Your task to perform on an android device: Go to Amazon Image 0: 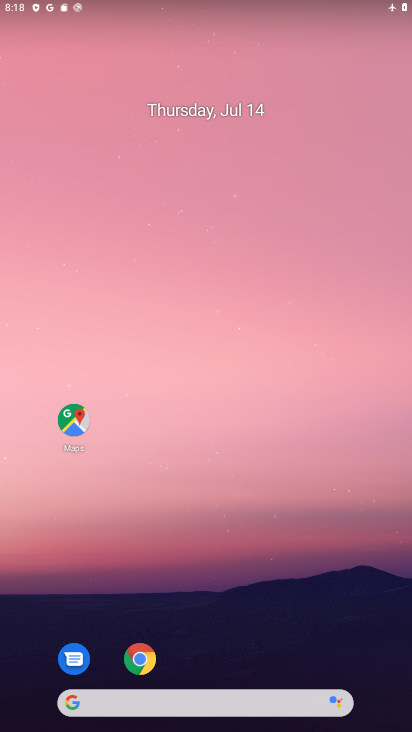
Step 0: click (142, 667)
Your task to perform on an android device: Go to Amazon Image 1: 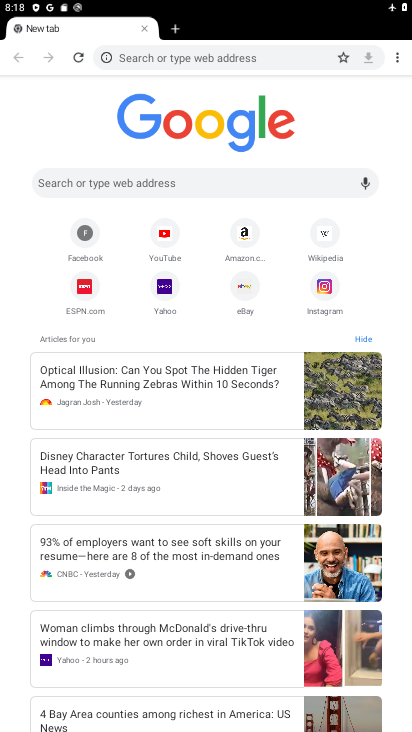
Step 1: click (247, 237)
Your task to perform on an android device: Go to Amazon Image 2: 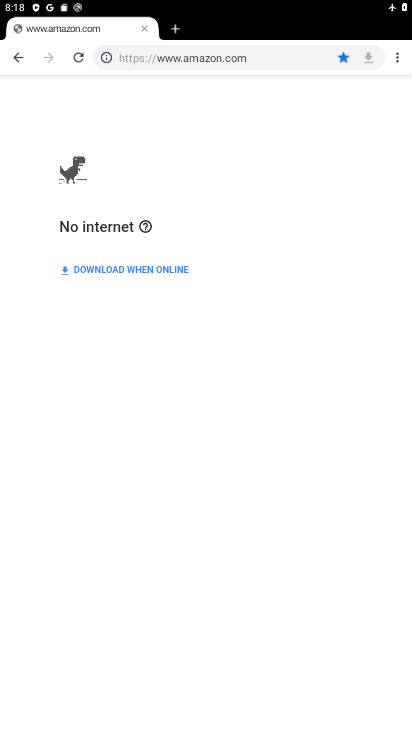
Step 2: press back button
Your task to perform on an android device: Go to Amazon Image 3: 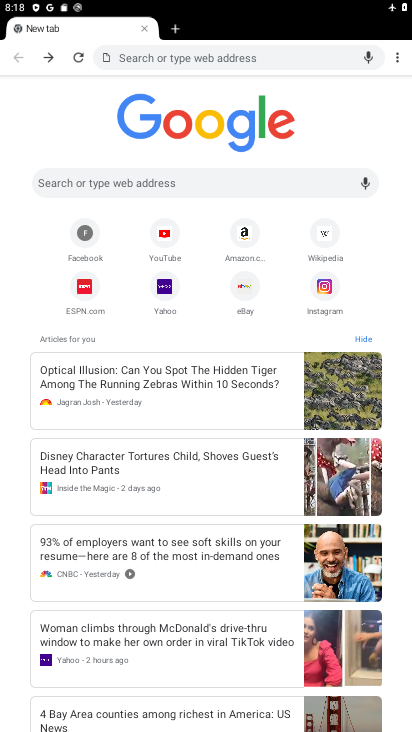
Step 3: press back button
Your task to perform on an android device: Go to Amazon Image 4: 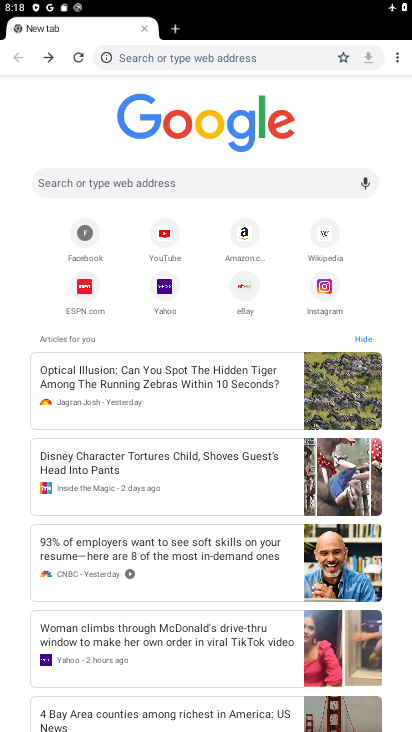
Step 4: press back button
Your task to perform on an android device: Go to Amazon Image 5: 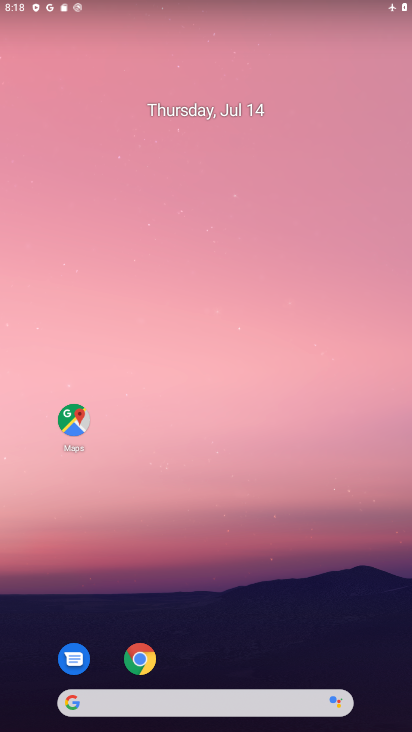
Step 5: drag from (154, 50) to (156, 5)
Your task to perform on an android device: Go to Amazon Image 6: 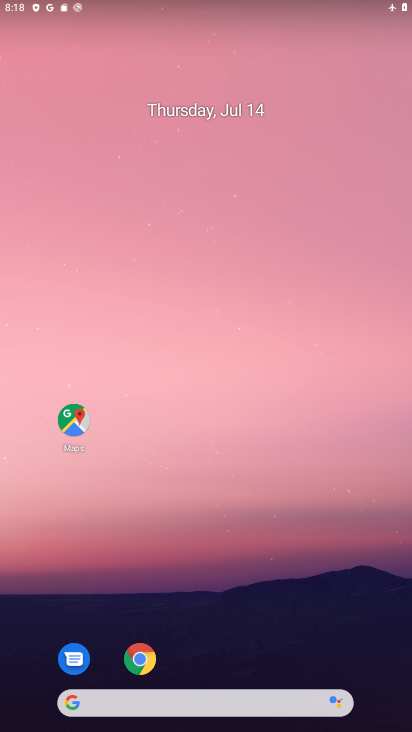
Step 6: drag from (190, 648) to (202, 147)
Your task to perform on an android device: Go to Amazon Image 7: 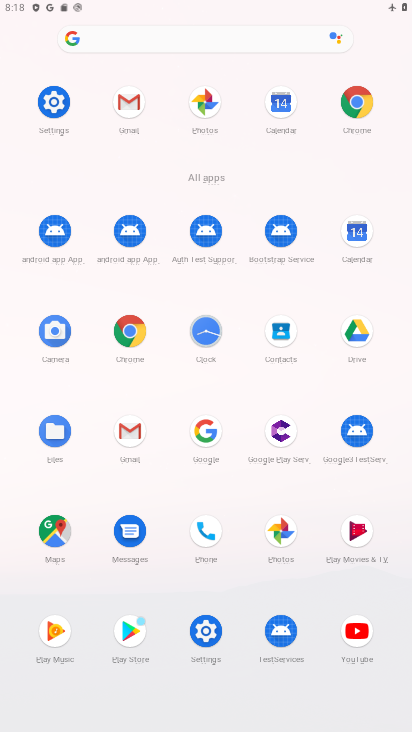
Step 7: click (51, 107)
Your task to perform on an android device: Go to Amazon Image 8: 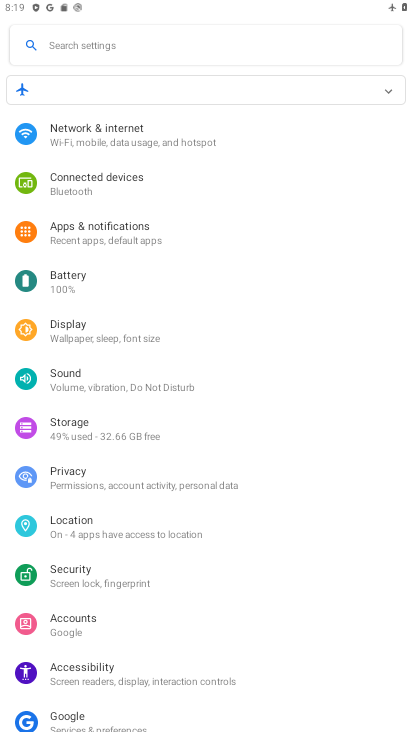
Step 8: click (388, 91)
Your task to perform on an android device: Go to Amazon Image 9: 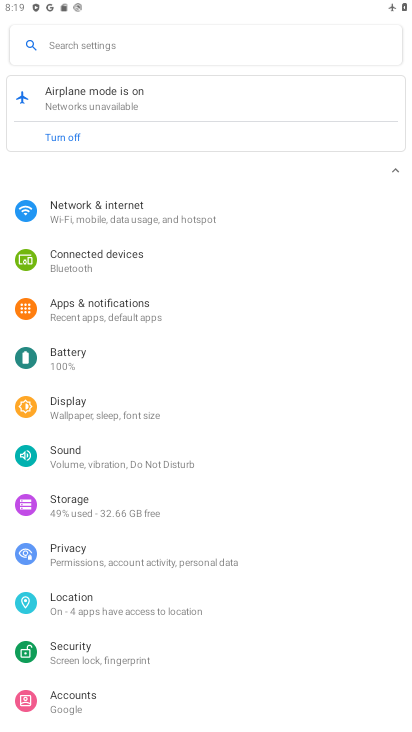
Step 9: click (72, 138)
Your task to perform on an android device: Go to Amazon Image 10: 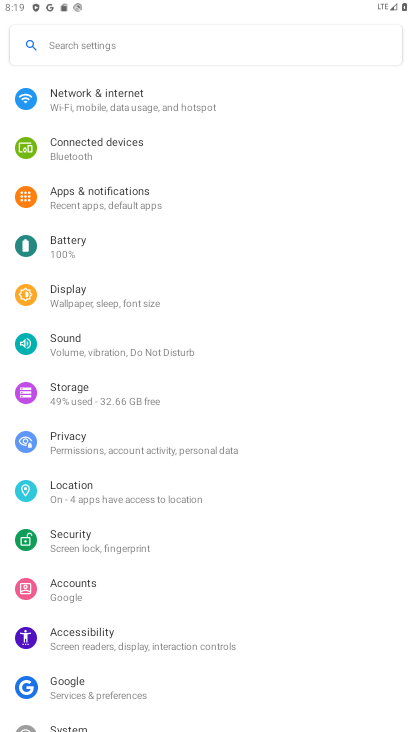
Step 10: press home button
Your task to perform on an android device: Go to Amazon Image 11: 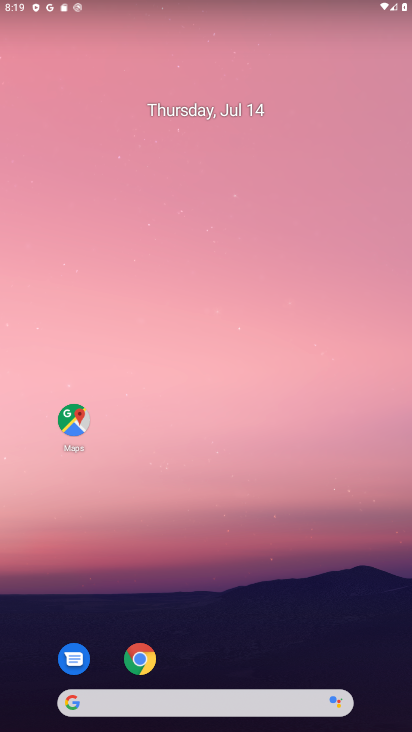
Step 11: click (126, 658)
Your task to perform on an android device: Go to Amazon Image 12: 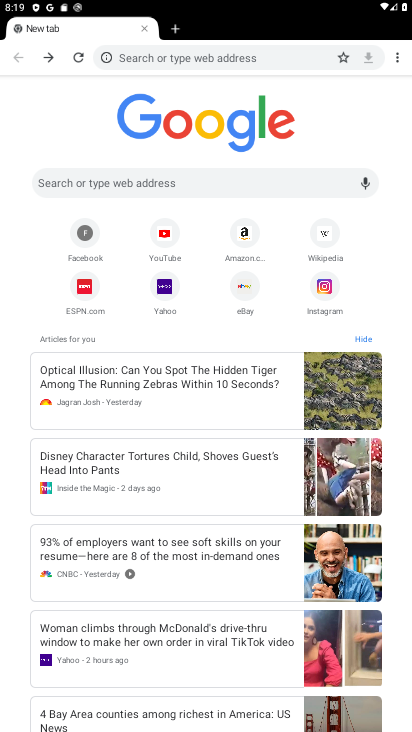
Step 12: click (241, 234)
Your task to perform on an android device: Go to Amazon Image 13: 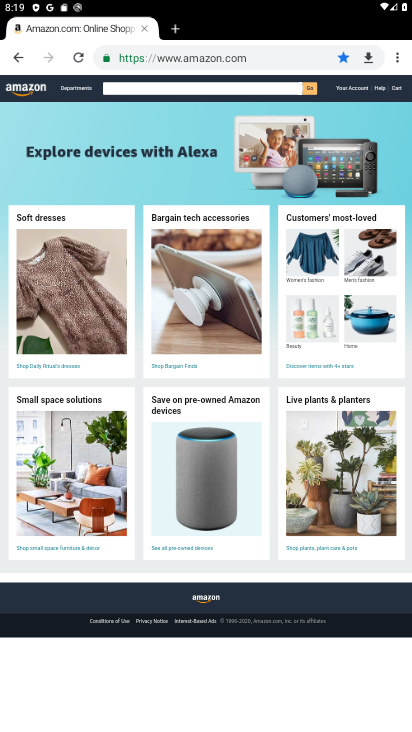
Step 13: task complete